Your task to perform on an android device: choose inbox layout in the gmail app Image 0: 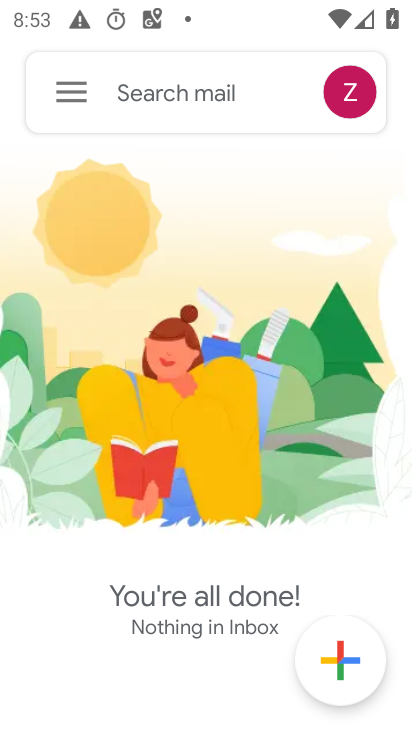
Step 0: click (70, 89)
Your task to perform on an android device: choose inbox layout in the gmail app Image 1: 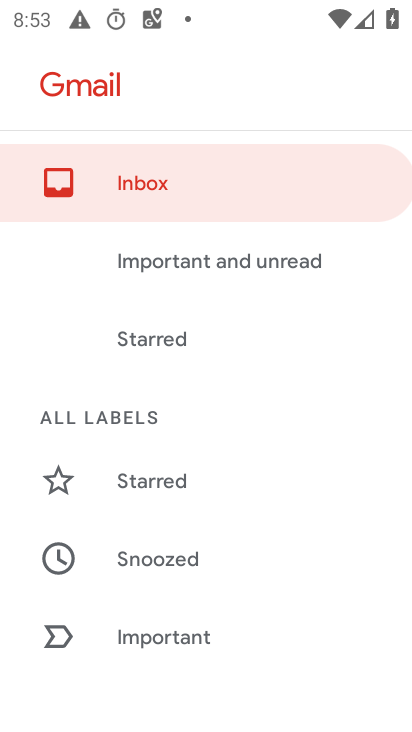
Step 1: drag from (228, 674) to (379, 132)
Your task to perform on an android device: choose inbox layout in the gmail app Image 2: 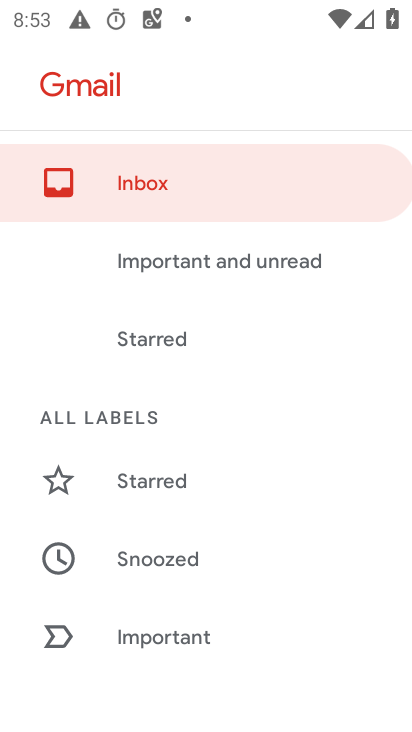
Step 2: drag from (279, 596) to (282, 70)
Your task to perform on an android device: choose inbox layout in the gmail app Image 3: 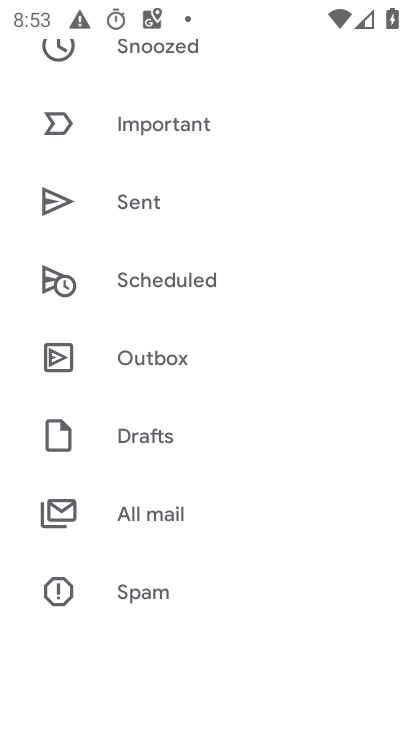
Step 3: drag from (258, 673) to (332, 138)
Your task to perform on an android device: choose inbox layout in the gmail app Image 4: 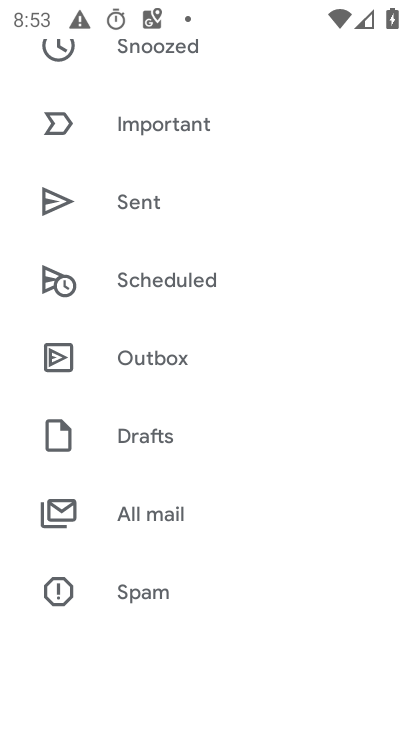
Step 4: drag from (231, 613) to (338, 143)
Your task to perform on an android device: choose inbox layout in the gmail app Image 5: 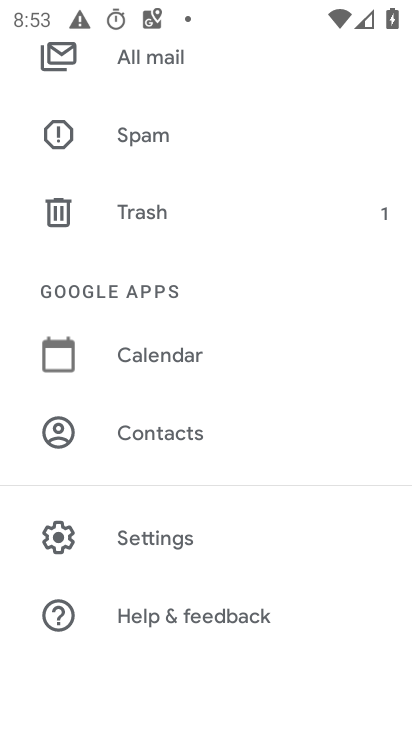
Step 5: click (146, 539)
Your task to perform on an android device: choose inbox layout in the gmail app Image 6: 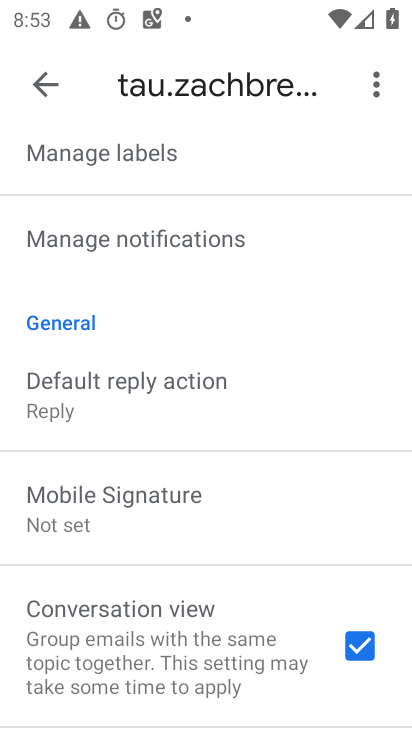
Step 6: drag from (283, 203) to (304, 632)
Your task to perform on an android device: choose inbox layout in the gmail app Image 7: 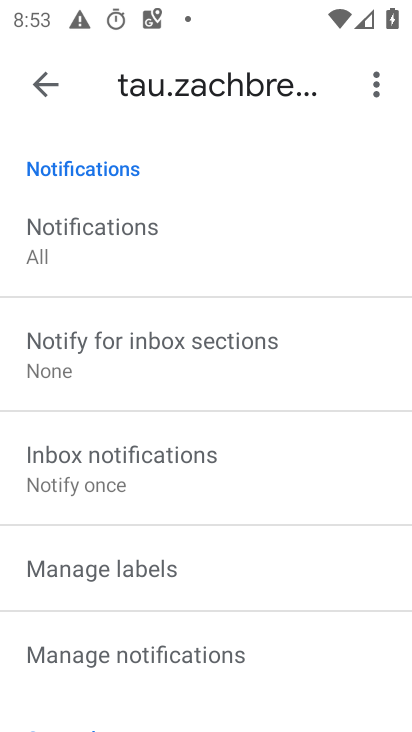
Step 7: drag from (284, 188) to (331, 654)
Your task to perform on an android device: choose inbox layout in the gmail app Image 8: 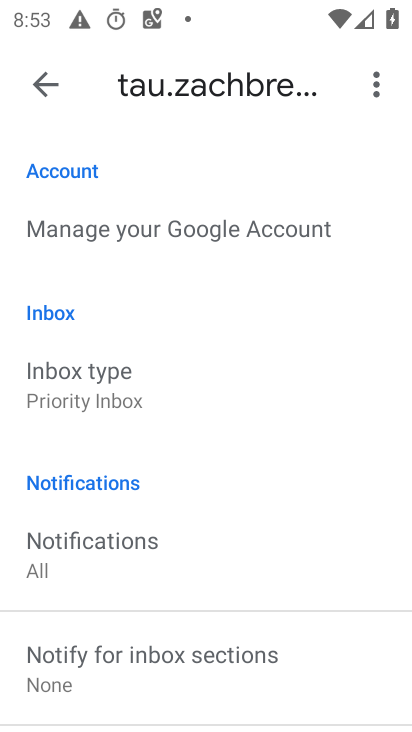
Step 8: click (112, 391)
Your task to perform on an android device: choose inbox layout in the gmail app Image 9: 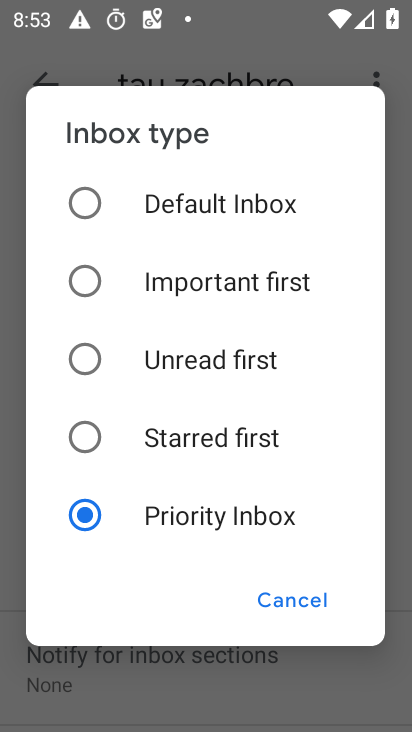
Step 9: click (94, 195)
Your task to perform on an android device: choose inbox layout in the gmail app Image 10: 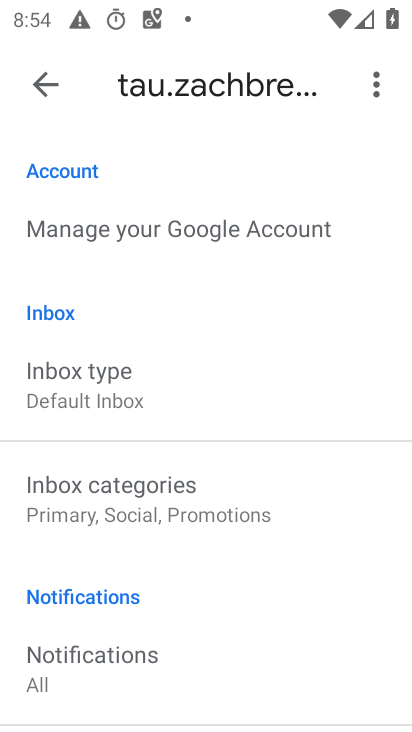
Step 10: task complete